Your task to perform on an android device: Open Youtube and go to the subscriptions tab Image 0: 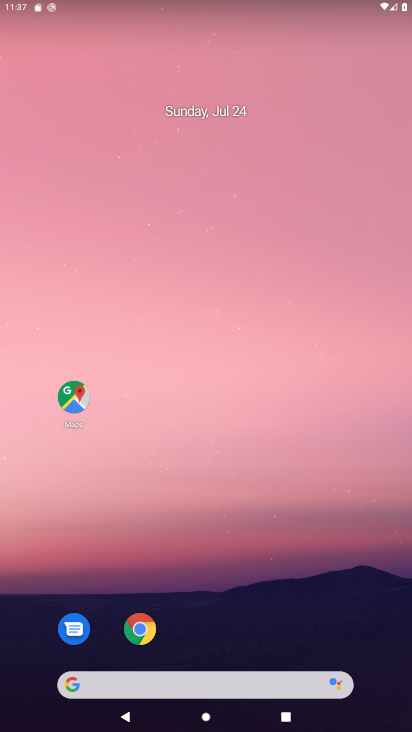
Step 0: drag from (226, 595) to (263, 248)
Your task to perform on an android device: Open Youtube and go to the subscriptions tab Image 1: 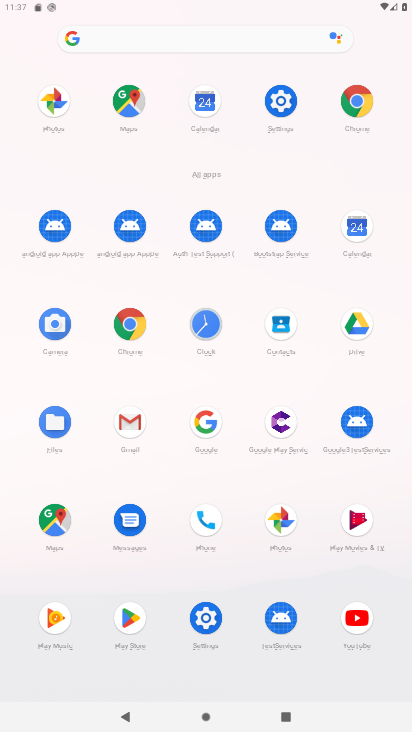
Step 1: click (358, 609)
Your task to perform on an android device: Open Youtube and go to the subscriptions tab Image 2: 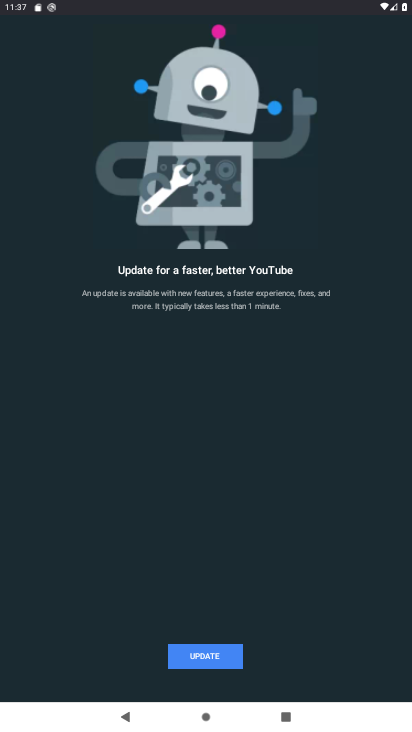
Step 2: click (217, 658)
Your task to perform on an android device: Open Youtube and go to the subscriptions tab Image 3: 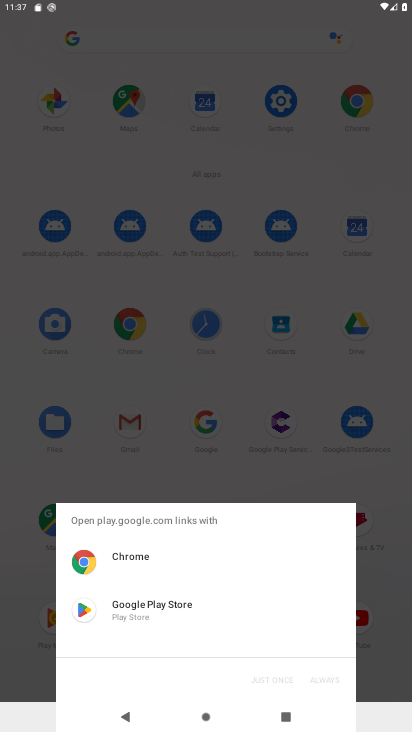
Step 3: click (131, 604)
Your task to perform on an android device: Open Youtube and go to the subscriptions tab Image 4: 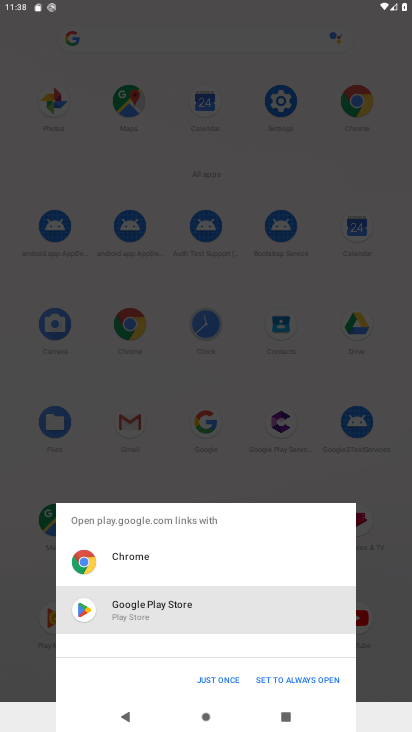
Step 4: click (211, 676)
Your task to perform on an android device: Open Youtube and go to the subscriptions tab Image 5: 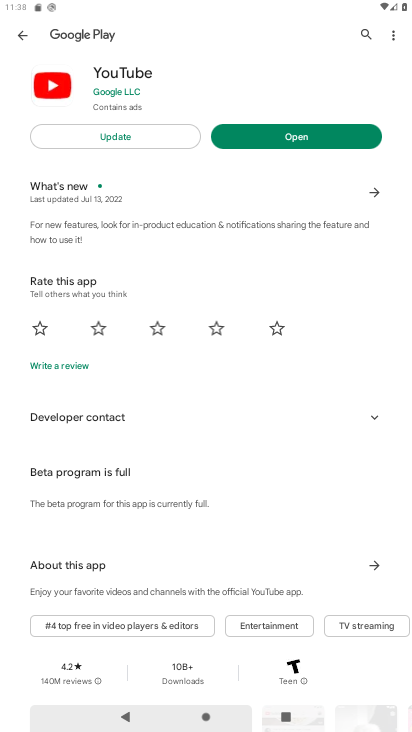
Step 5: click (117, 134)
Your task to perform on an android device: Open Youtube and go to the subscriptions tab Image 6: 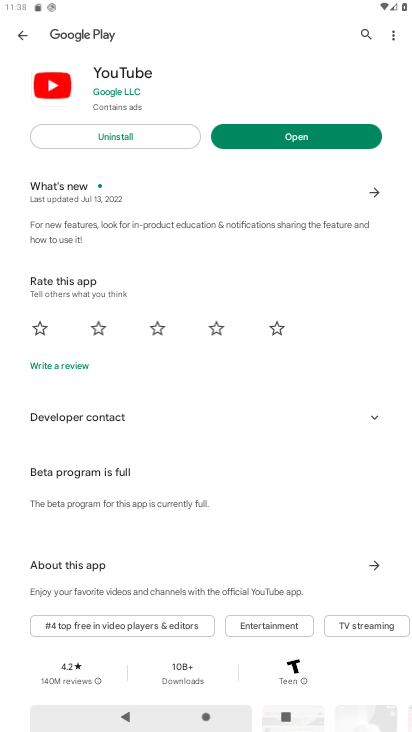
Step 6: click (287, 132)
Your task to perform on an android device: Open Youtube and go to the subscriptions tab Image 7: 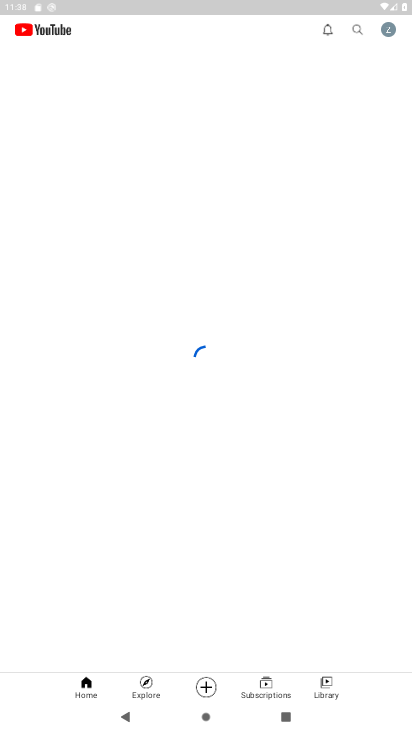
Step 7: click (271, 685)
Your task to perform on an android device: Open Youtube and go to the subscriptions tab Image 8: 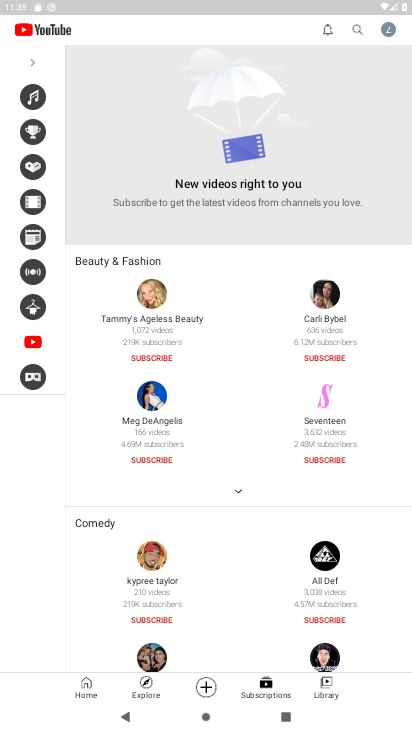
Step 8: task complete